Your task to perform on an android device: Go to sound settings Image 0: 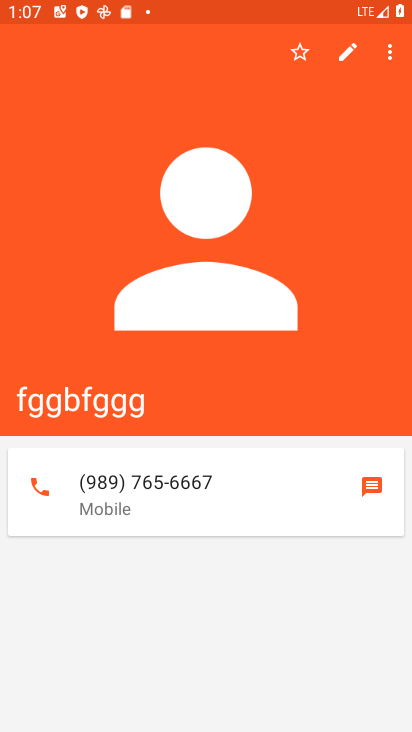
Step 0: press home button
Your task to perform on an android device: Go to sound settings Image 1: 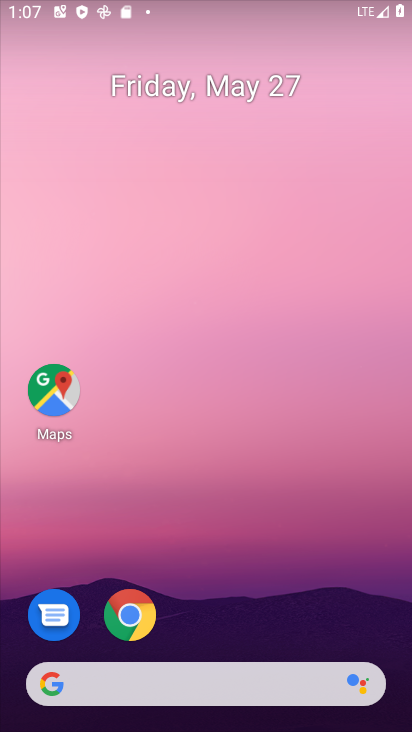
Step 1: drag from (211, 629) to (245, 22)
Your task to perform on an android device: Go to sound settings Image 2: 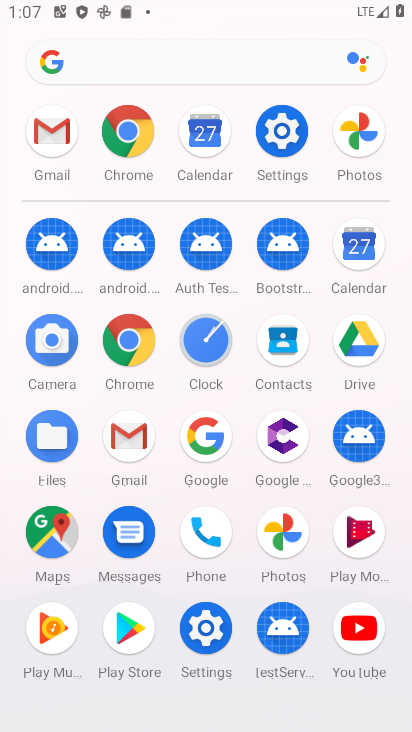
Step 2: click (285, 119)
Your task to perform on an android device: Go to sound settings Image 3: 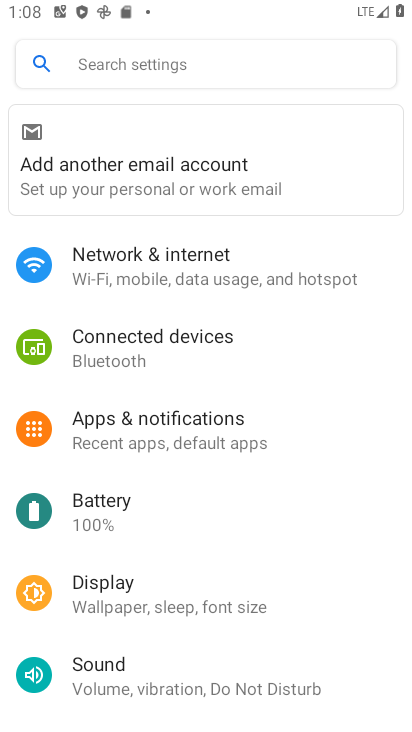
Step 3: click (200, 677)
Your task to perform on an android device: Go to sound settings Image 4: 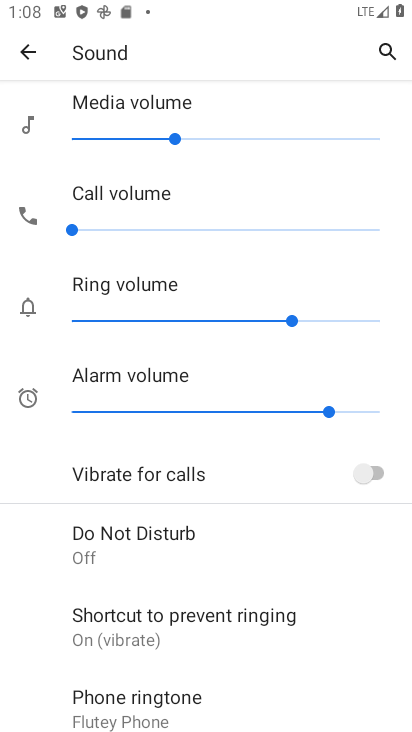
Step 4: task complete